Your task to perform on an android device: When is my next appointment? Image 0: 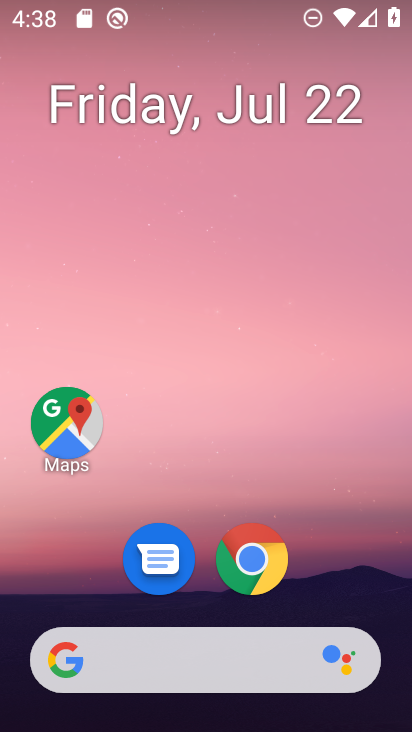
Step 0: drag from (31, 592) to (221, 8)
Your task to perform on an android device: When is my next appointment? Image 1: 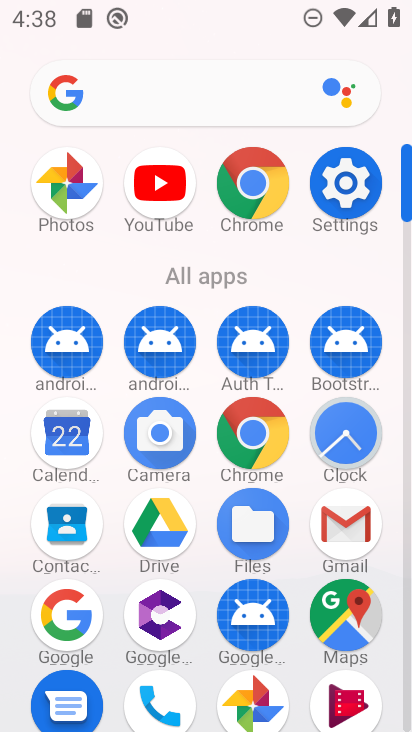
Step 1: click (61, 453)
Your task to perform on an android device: When is my next appointment? Image 2: 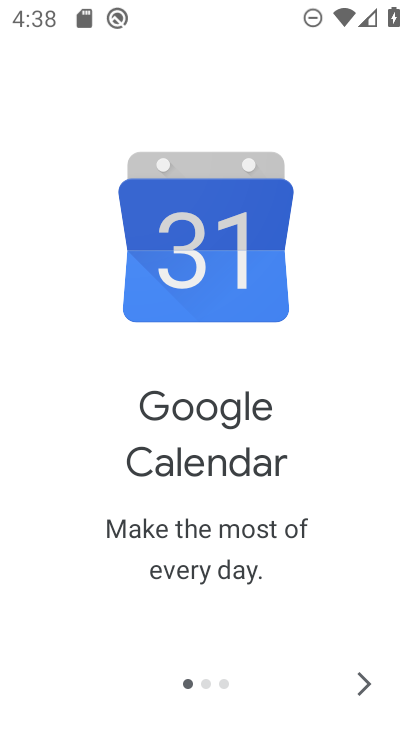
Step 2: click (376, 671)
Your task to perform on an android device: When is my next appointment? Image 3: 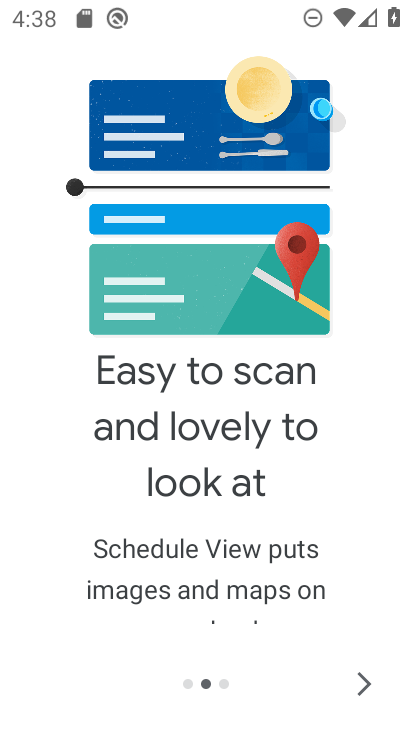
Step 3: click (320, 670)
Your task to perform on an android device: When is my next appointment? Image 4: 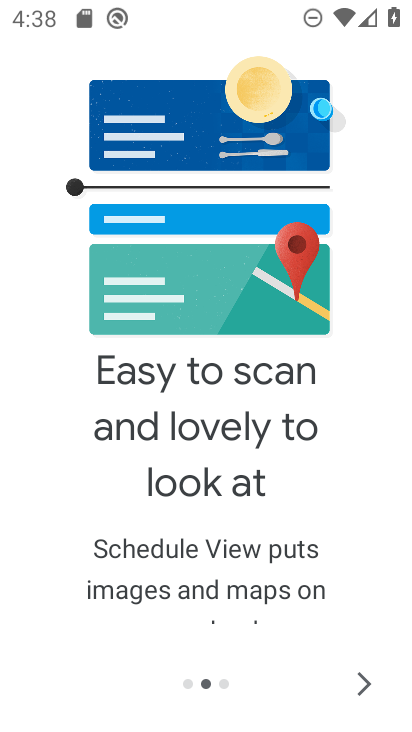
Step 4: click (357, 673)
Your task to perform on an android device: When is my next appointment? Image 5: 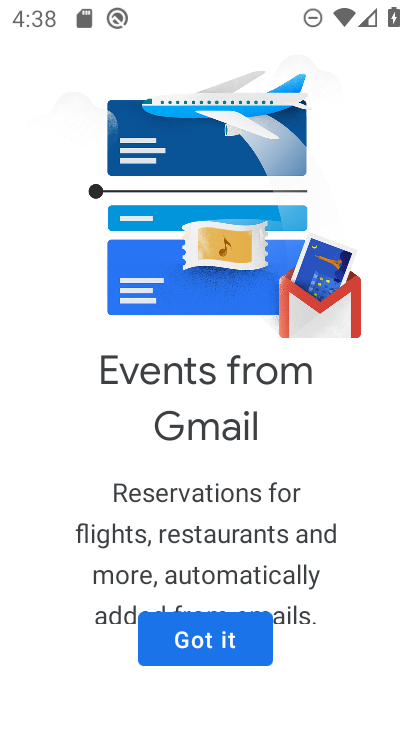
Step 5: click (212, 647)
Your task to perform on an android device: When is my next appointment? Image 6: 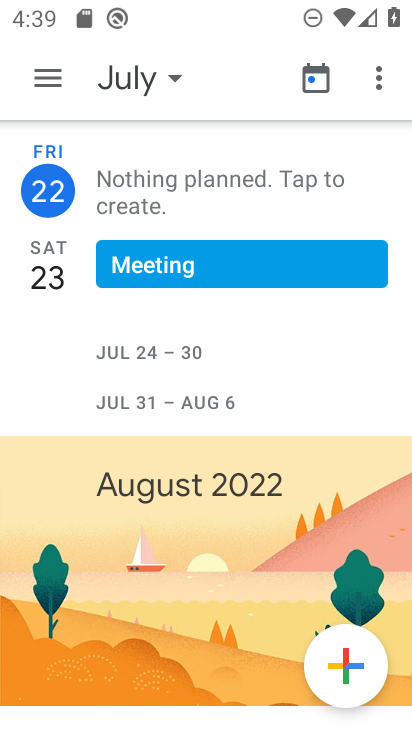
Step 6: task complete